Your task to perform on an android device: install app "Google Keep" Image 0: 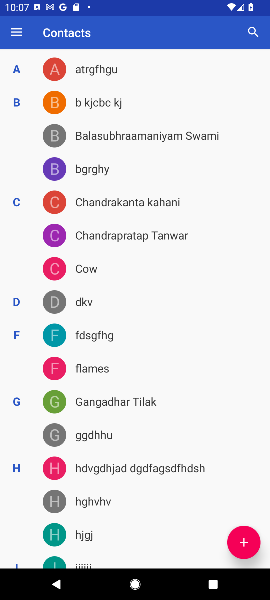
Step 0: press home button
Your task to perform on an android device: install app "Google Keep" Image 1: 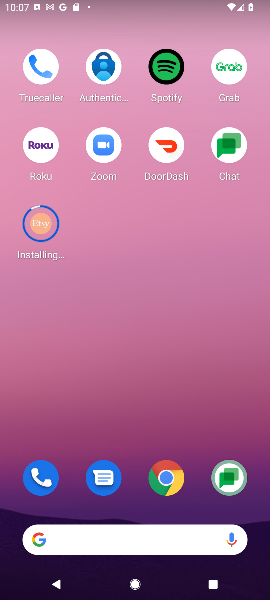
Step 1: drag from (126, 517) to (126, 83)
Your task to perform on an android device: install app "Google Keep" Image 2: 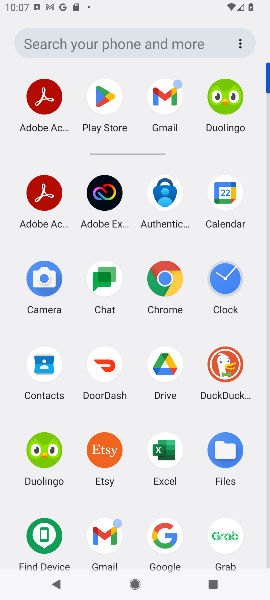
Step 2: click (106, 96)
Your task to perform on an android device: install app "Google Keep" Image 3: 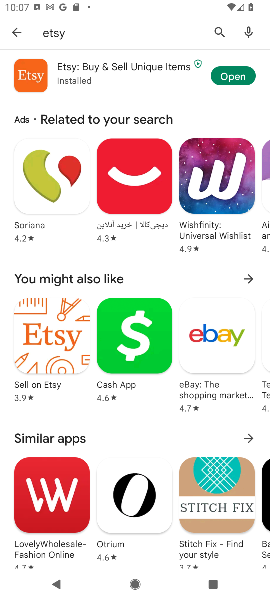
Step 3: click (215, 34)
Your task to perform on an android device: install app "Google Keep" Image 4: 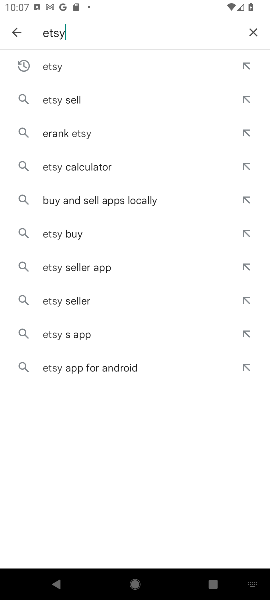
Step 4: click (252, 31)
Your task to perform on an android device: install app "Google Keep" Image 5: 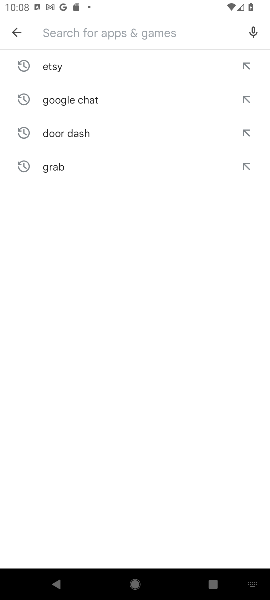
Step 5: type "google keeps"
Your task to perform on an android device: install app "Google Keep" Image 6: 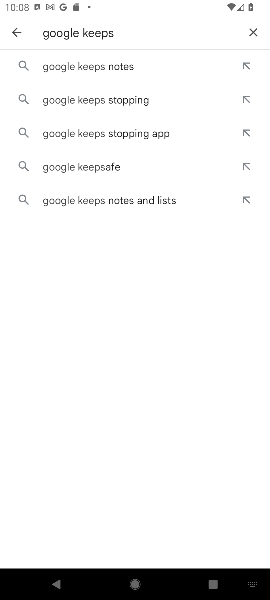
Step 6: click (172, 65)
Your task to perform on an android device: install app "Google Keep" Image 7: 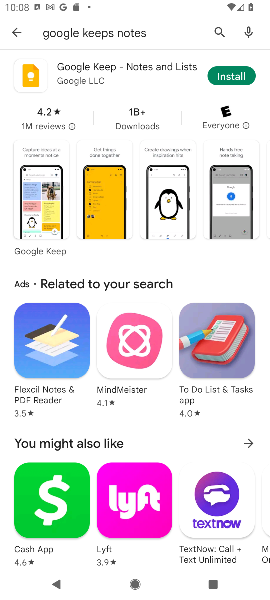
Step 7: click (216, 65)
Your task to perform on an android device: install app "Google Keep" Image 8: 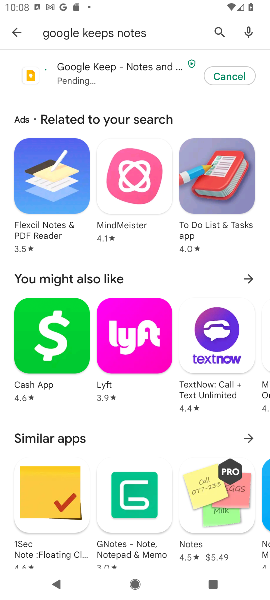
Step 8: task complete